Your task to perform on an android device: empty trash in the gmail app Image 0: 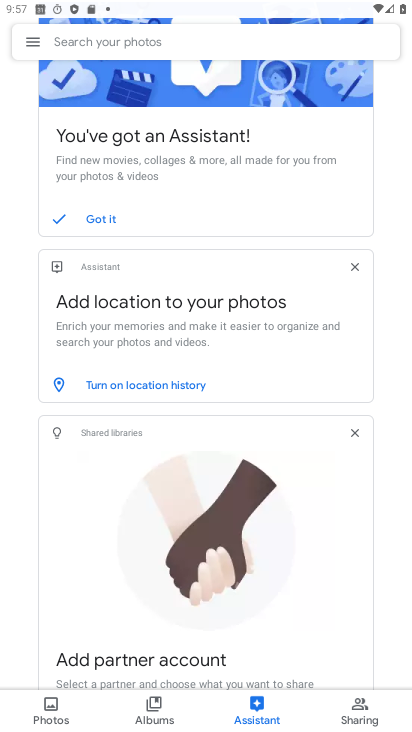
Step 0: drag from (247, 590) to (279, 144)
Your task to perform on an android device: empty trash in the gmail app Image 1: 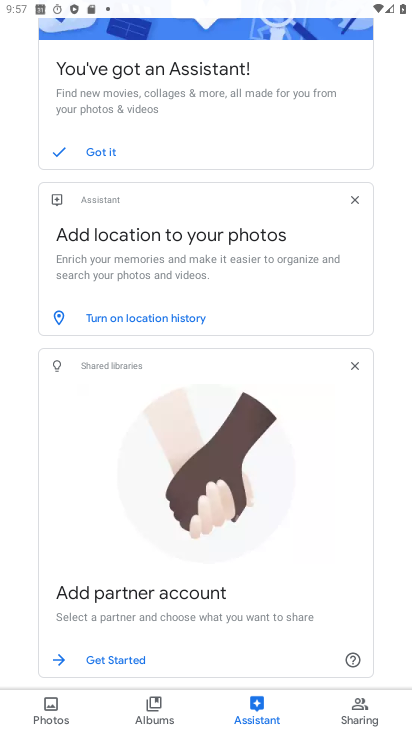
Step 1: drag from (64, 127) to (276, 637)
Your task to perform on an android device: empty trash in the gmail app Image 2: 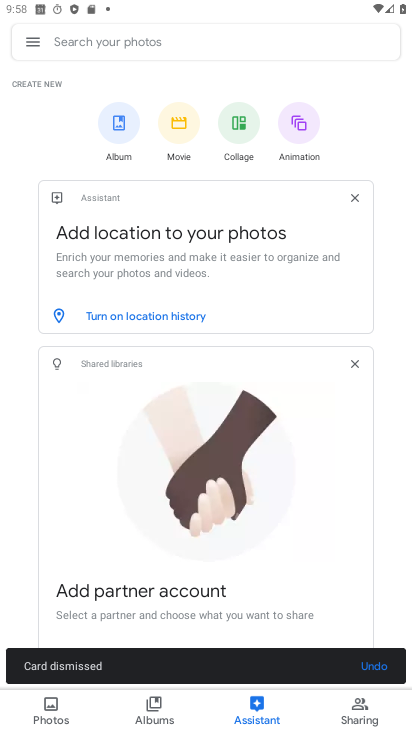
Step 2: click (30, 48)
Your task to perform on an android device: empty trash in the gmail app Image 3: 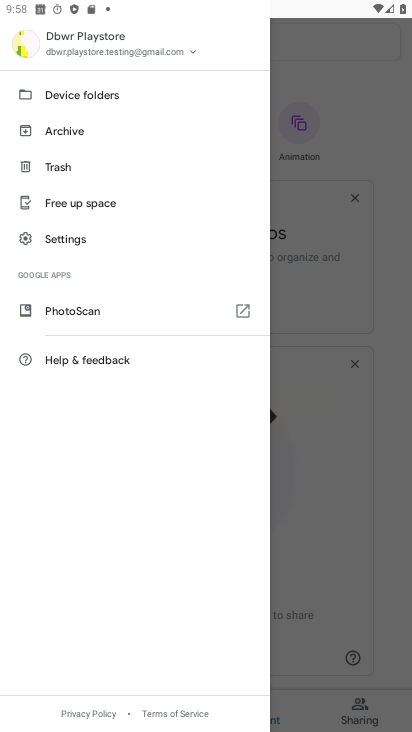
Step 3: press home button
Your task to perform on an android device: empty trash in the gmail app Image 4: 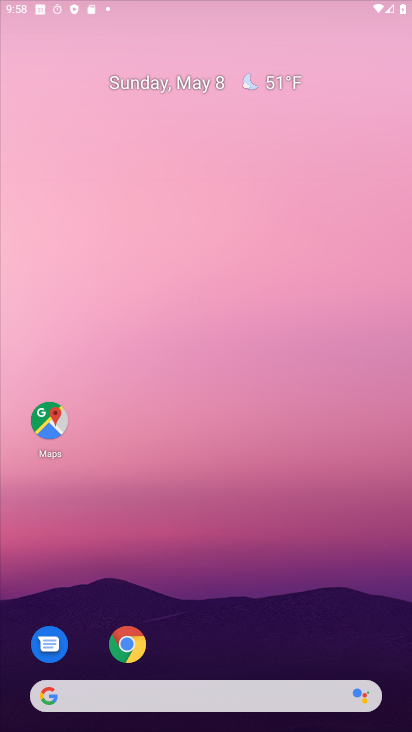
Step 4: drag from (251, 604) to (231, 110)
Your task to perform on an android device: empty trash in the gmail app Image 5: 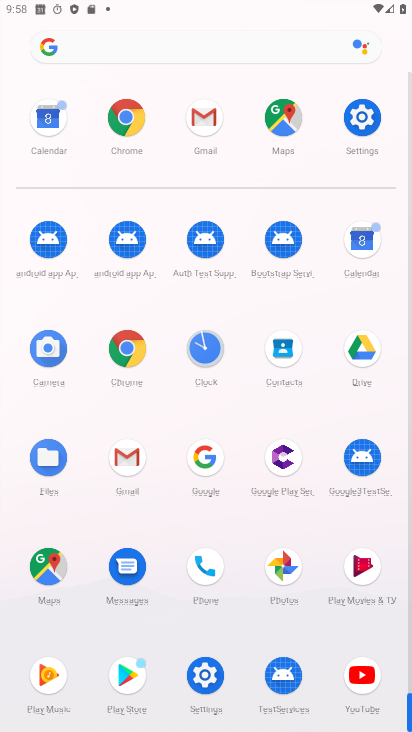
Step 5: click (125, 452)
Your task to perform on an android device: empty trash in the gmail app Image 6: 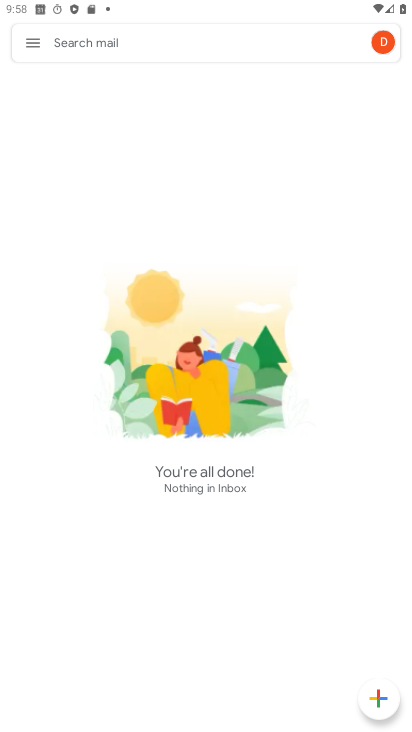
Step 6: click (27, 46)
Your task to perform on an android device: empty trash in the gmail app Image 7: 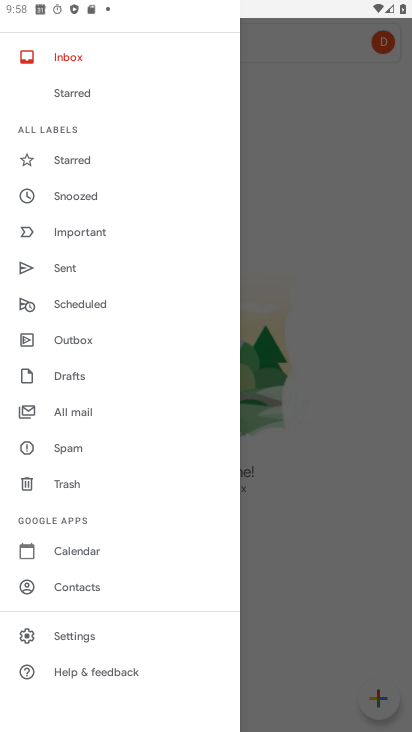
Step 7: click (89, 491)
Your task to perform on an android device: empty trash in the gmail app Image 8: 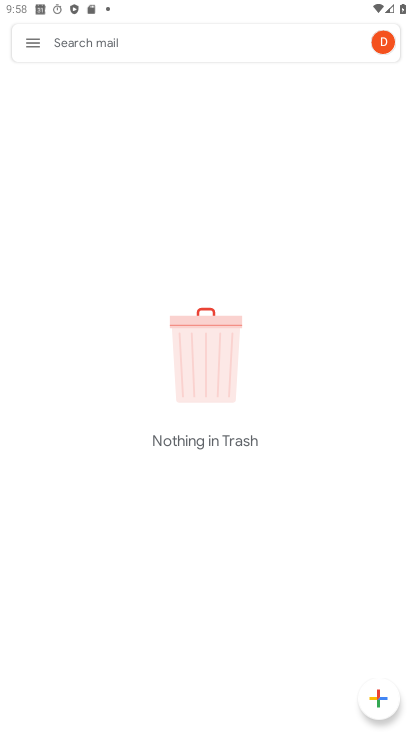
Step 8: task complete